Your task to perform on an android device: Open location settings Image 0: 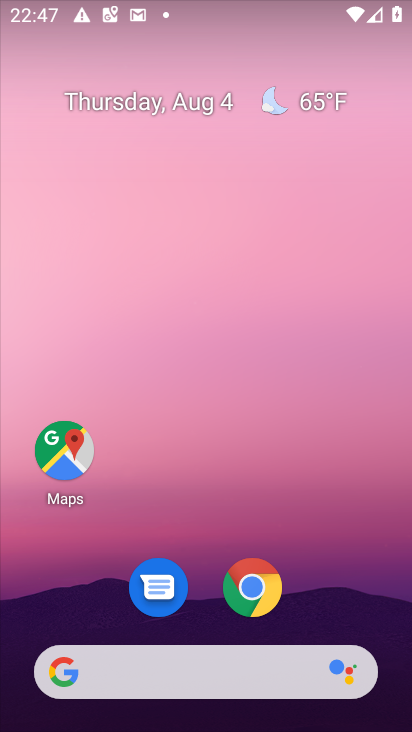
Step 0: drag from (166, 638) to (301, 207)
Your task to perform on an android device: Open location settings Image 1: 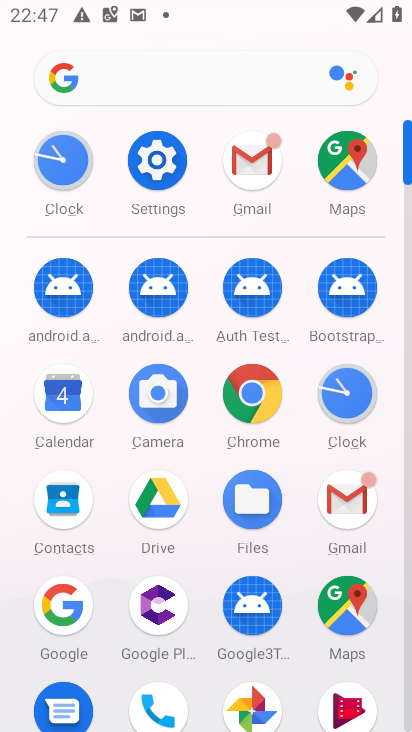
Step 1: click (152, 153)
Your task to perform on an android device: Open location settings Image 2: 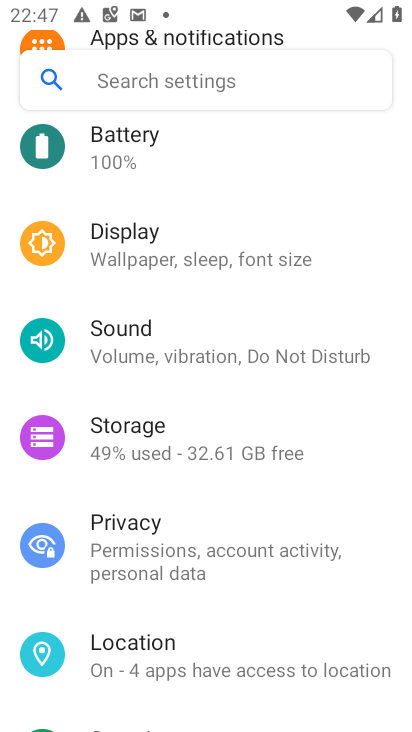
Step 2: click (157, 651)
Your task to perform on an android device: Open location settings Image 3: 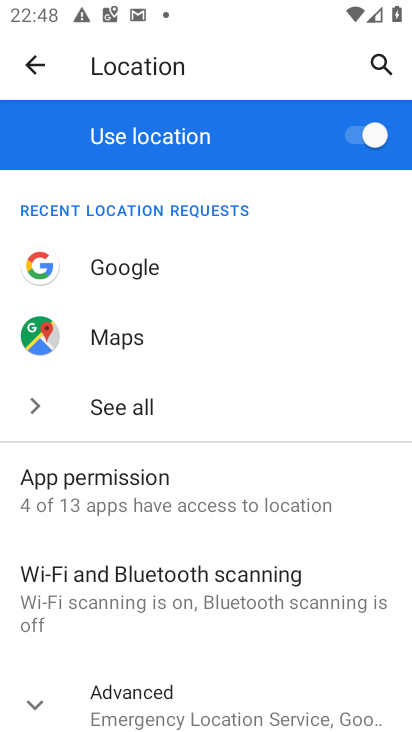
Step 3: task complete